Your task to perform on an android device: Open Google Image 0: 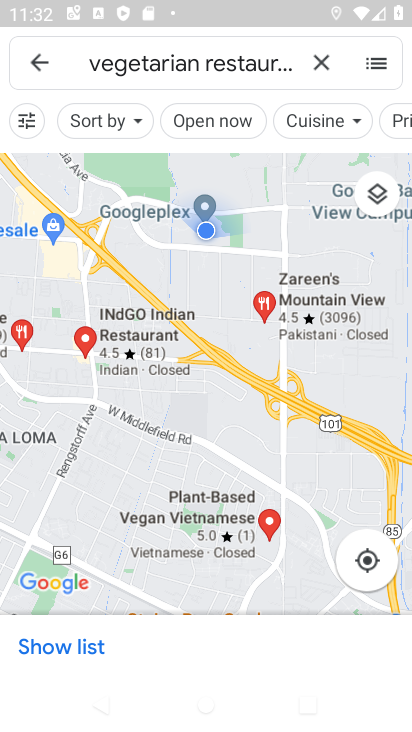
Step 0: click (29, 56)
Your task to perform on an android device: Open Google Image 1: 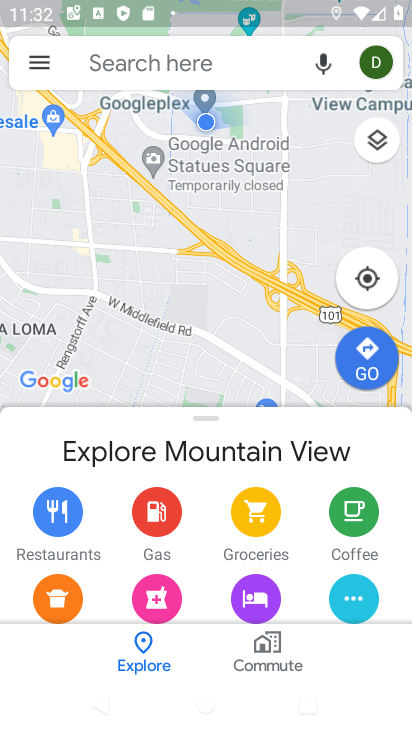
Step 1: click (365, 277)
Your task to perform on an android device: Open Google Image 2: 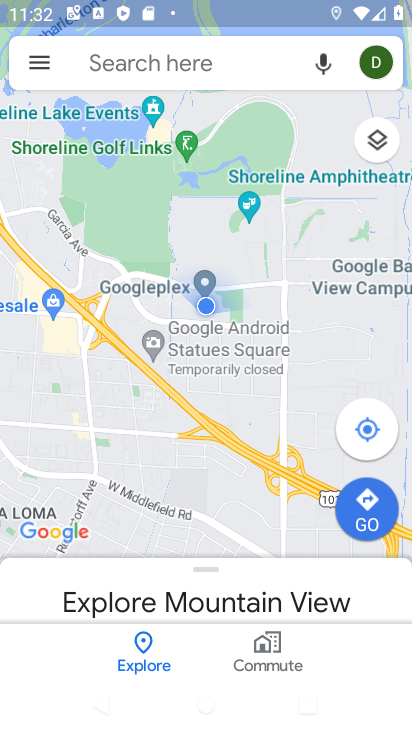
Step 2: task complete